Your task to perform on an android device: Go to Android settings Image 0: 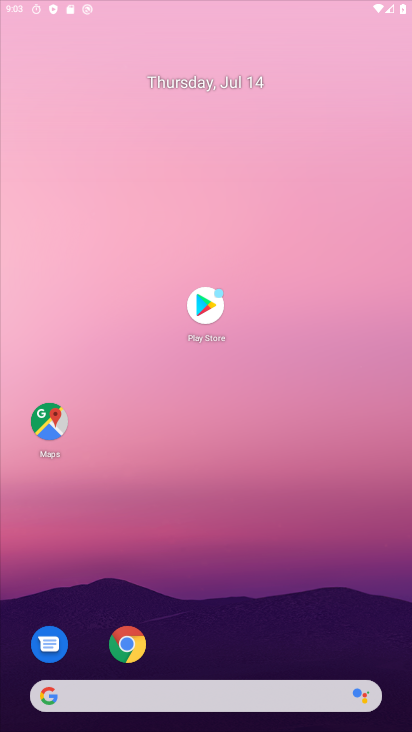
Step 0: drag from (216, 549) to (310, 254)
Your task to perform on an android device: Go to Android settings Image 1: 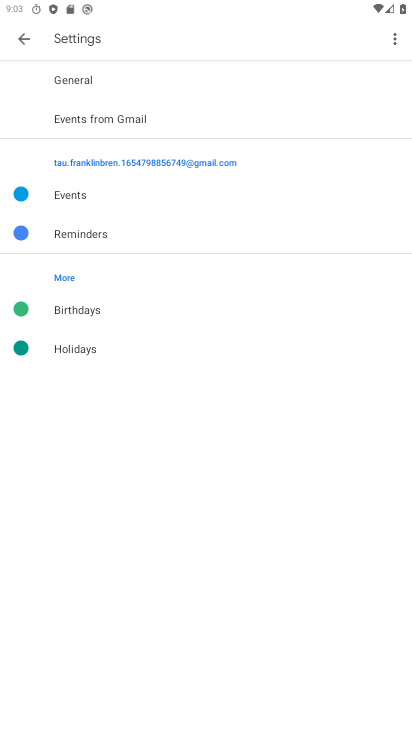
Step 1: drag from (198, 667) to (240, 194)
Your task to perform on an android device: Go to Android settings Image 2: 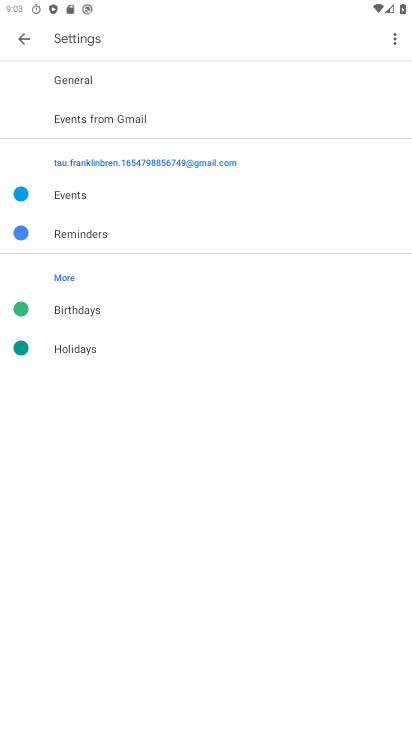
Step 2: press home button
Your task to perform on an android device: Go to Android settings Image 3: 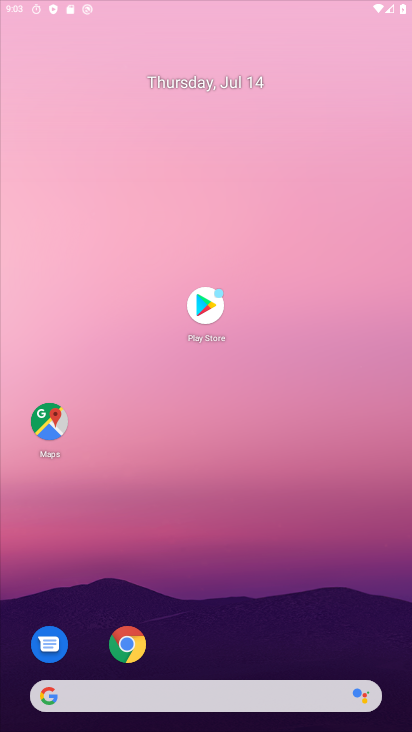
Step 3: drag from (201, 564) to (249, 13)
Your task to perform on an android device: Go to Android settings Image 4: 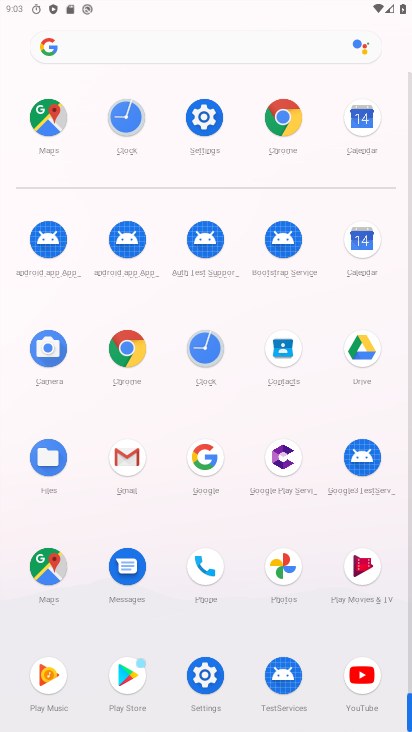
Step 4: click (198, 118)
Your task to perform on an android device: Go to Android settings Image 5: 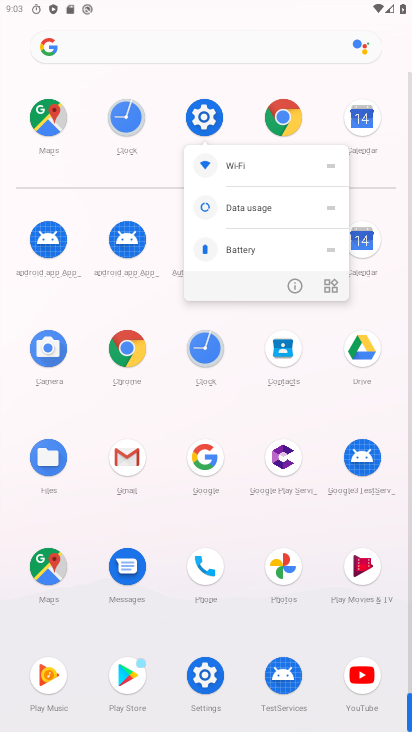
Step 5: click (286, 282)
Your task to perform on an android device: Go to Android settings Image 6: 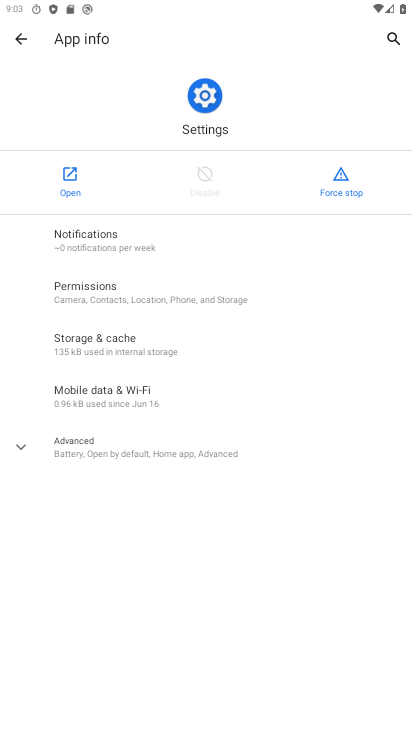
Step 6: click (49, 179)
Your task to perform on an android device: Go to Android settings Image 7: 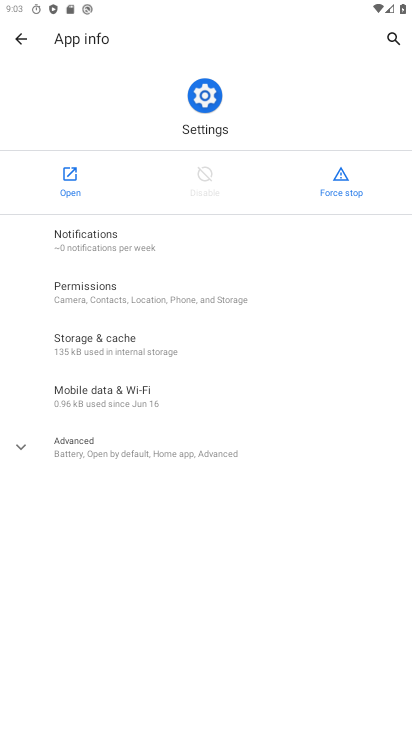
Step 7: click (81, 177)
Your task to perform on an android device: Go to Android settings Image 8: 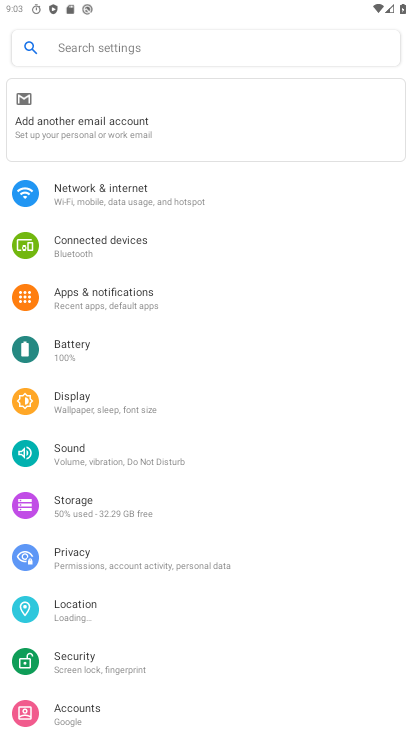
Step 8: drag from (197, 566) to (189, 22)
Your task to perform on an android device: Go to Android settings Image 9: 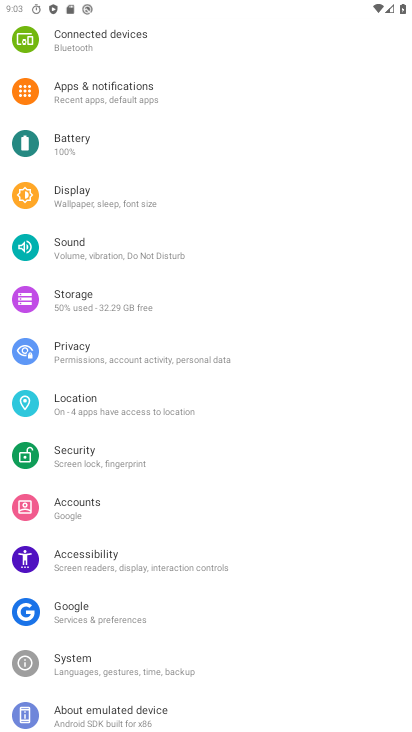
Step 9: drag from (109, 649) to (245, 57)
Your task to perform on an android device: Go to Android settings Image 10: 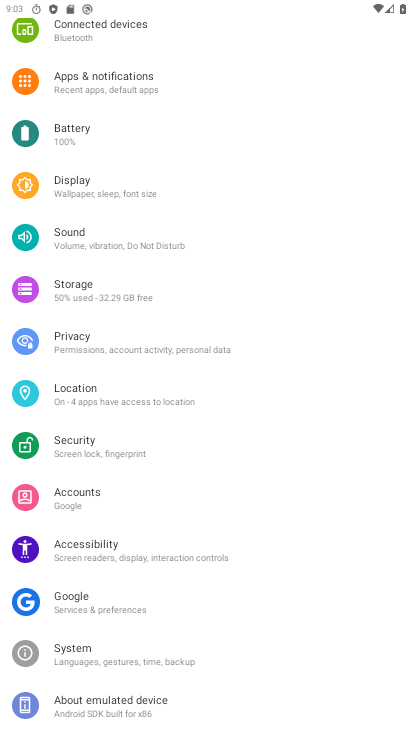
Step 10: click (152, 708)
Your task to perform on an android device: Go to Android settings Image 11: 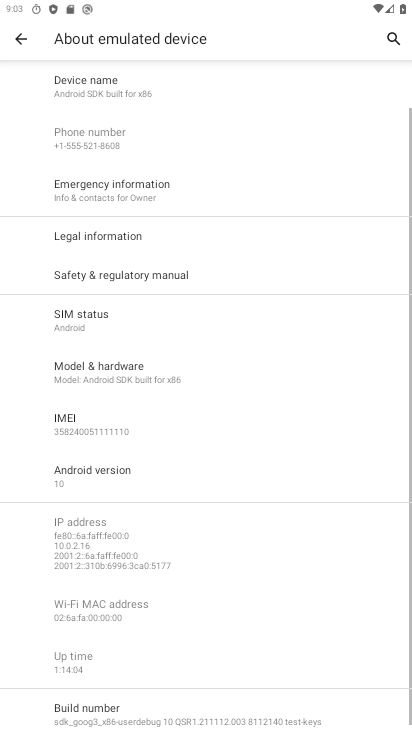
Step 11: click (138, 469)
Your task to perform on an android device: Go to Android settings Image 12: 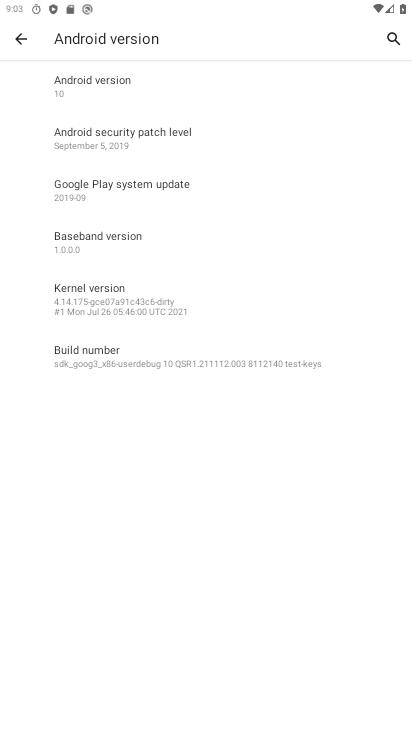
Step 12: click (115, 85)
Your task to perform on an android device: Go to Android settings Image 13: 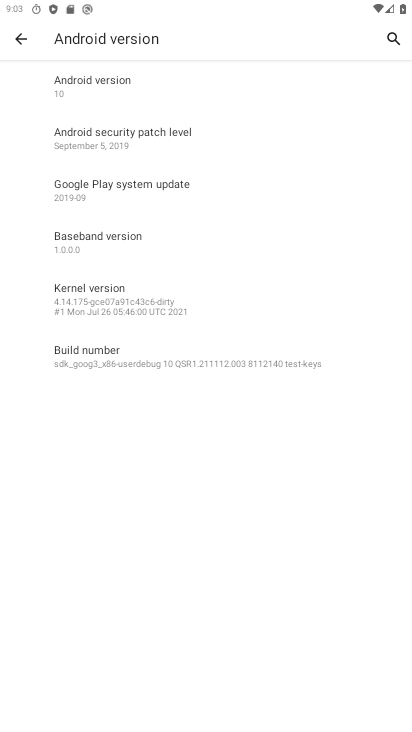
Step 13: task complete